Your task to perform on an android device: What's on my calendar today? Image 0: 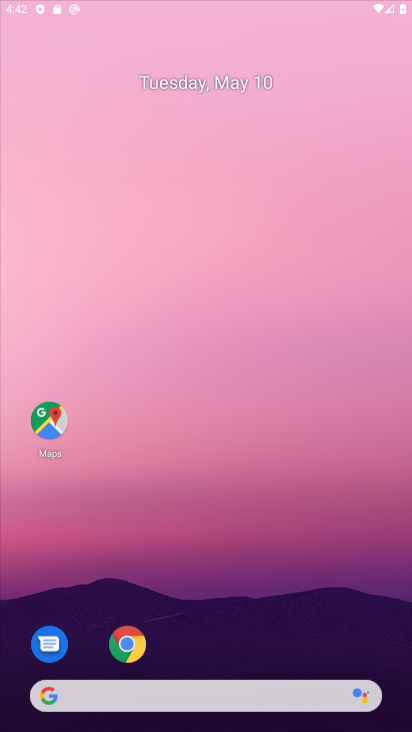
Step 0: press home button
Your task to perform on an android device: What's on my calendar today? Image 1: 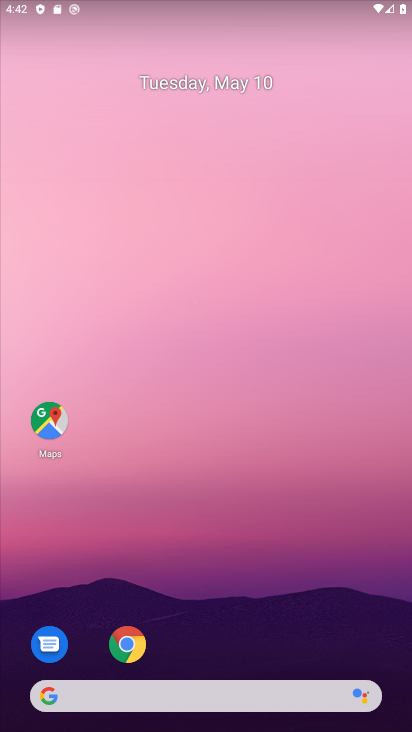
Step 1: drag from (226, 661) to (301, 126)
Your task to perform on an android device: What's on my calendar today? Image 2: 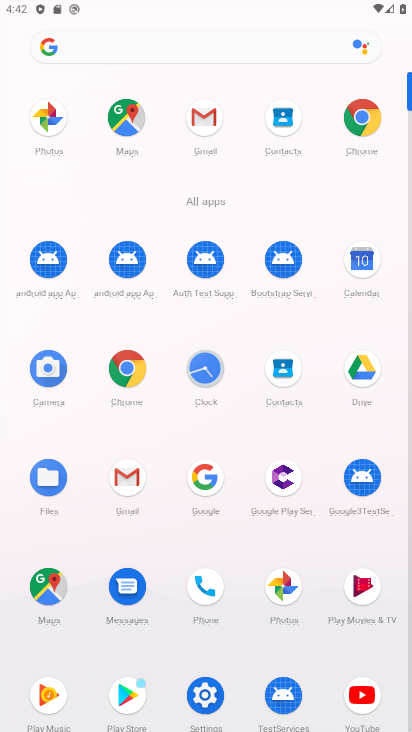
Step 2: click (362, 253)
Your task to perform on an android device: What's on my calendar today? Image 3: 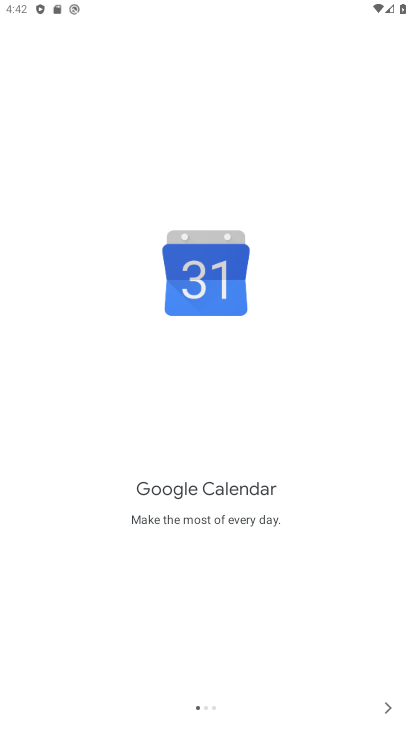
Step 3: click (383, 703)
Your task to perform on an android device: What's on my calendar today? Image 4: 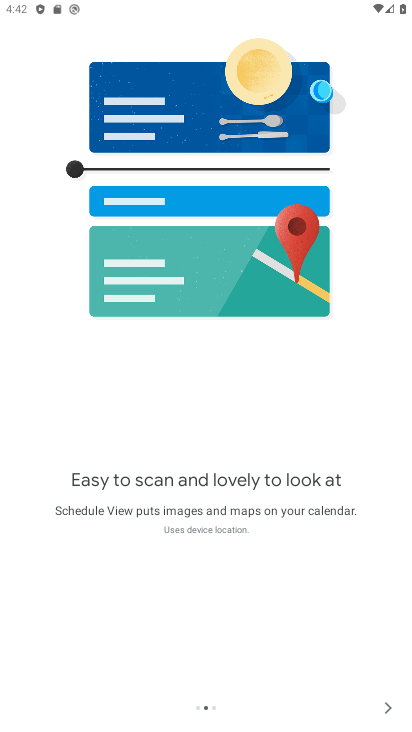
Step 4: click (383, 703)
Your task to perform on an android device: What's on my calendar today? Image 5: 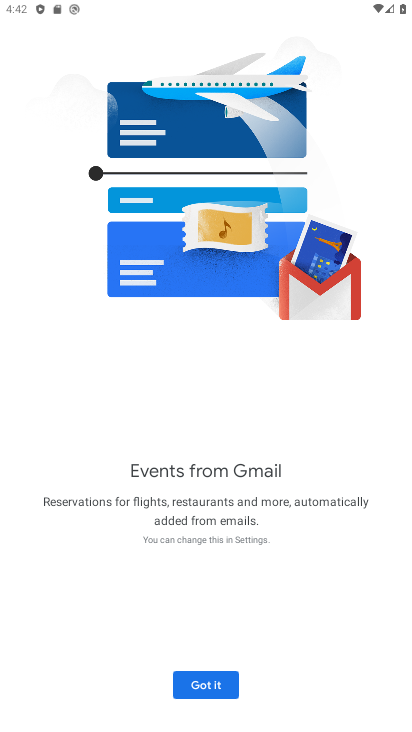
Step 5: click (212, 681)
Your task to perform on an android device: What's on my calendar today? Image 6: 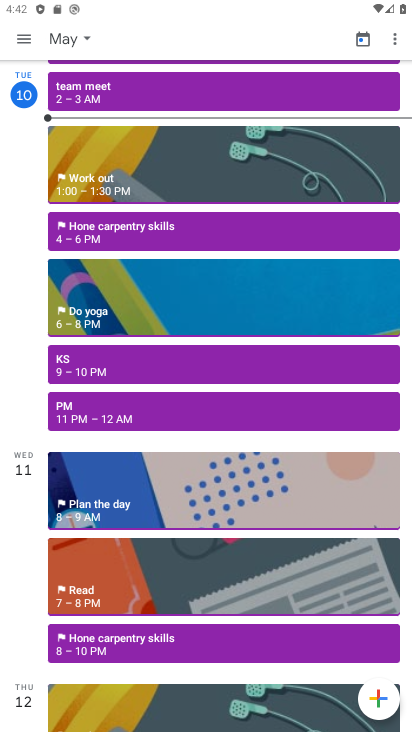
Step 6: click (18, 36)
Your task to perform on an android device: What's on my calendar today? Image 7: 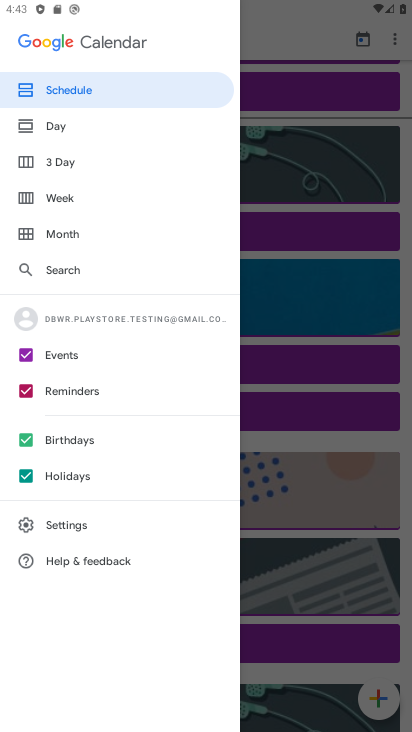
Step 7: click (316, 187)
Your task to perform on an android device: What's on my calendar today? Image 8: 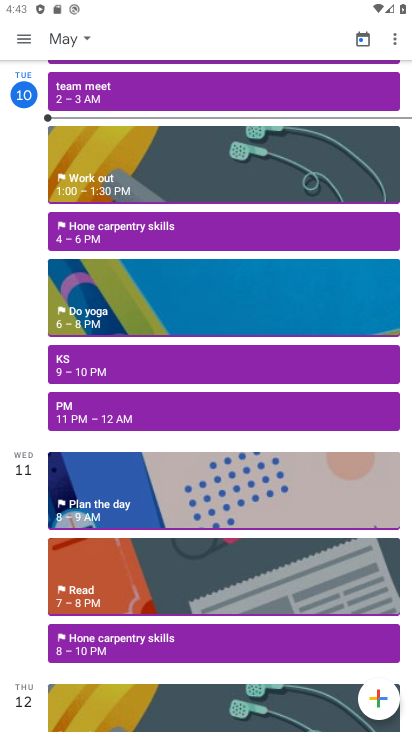
Step 8: click (23, 39)
Your task to perform on an android device: What's on my calendar today? Image 9: 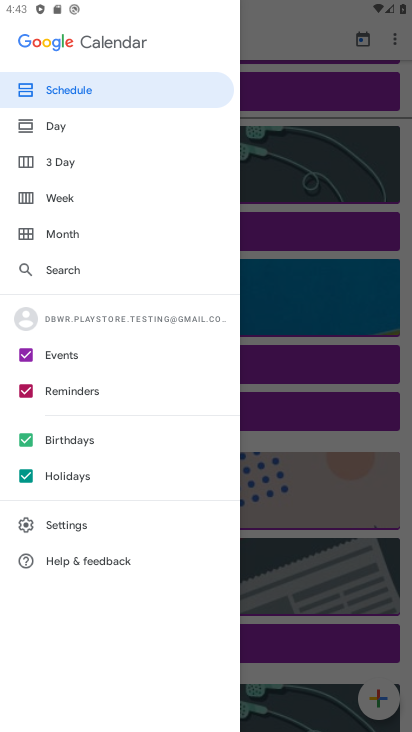
Step 9: click (64, 125)
Your task to perform on an android device: What's on my calendar today? Image 10: 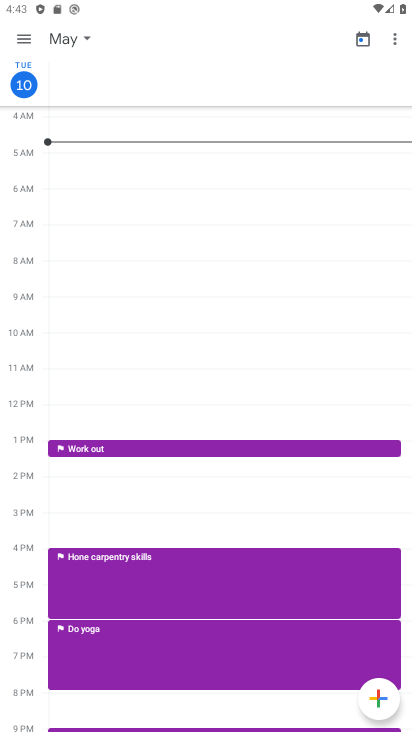
Step 10: task complete